Your task to perform on an android device: add a label to a message in the gmail app Image 0: 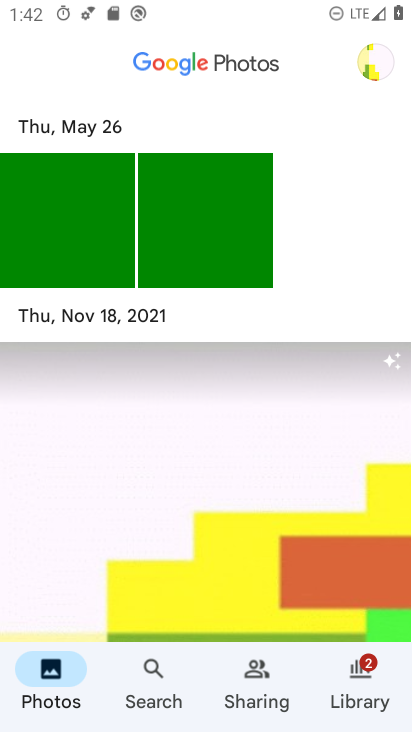
Step 0: press home button
Your task to perform on an android device: add a label to a message in the gmail app Image 1: 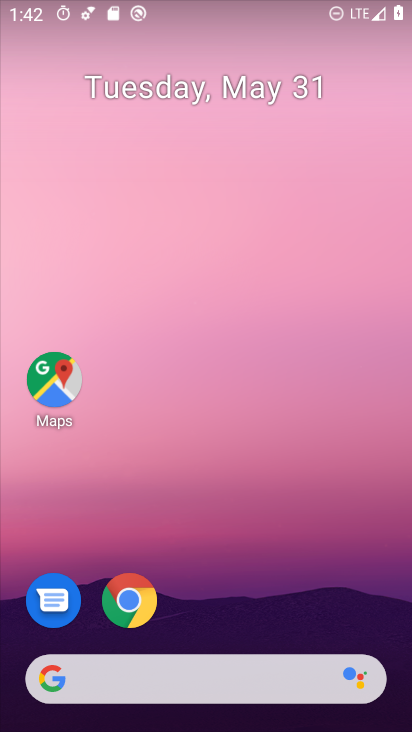
Step 1: drag from (230, 731) to (228, 116)
Your task to perform on an android device: add a label to a message in the gmail app Image 2: 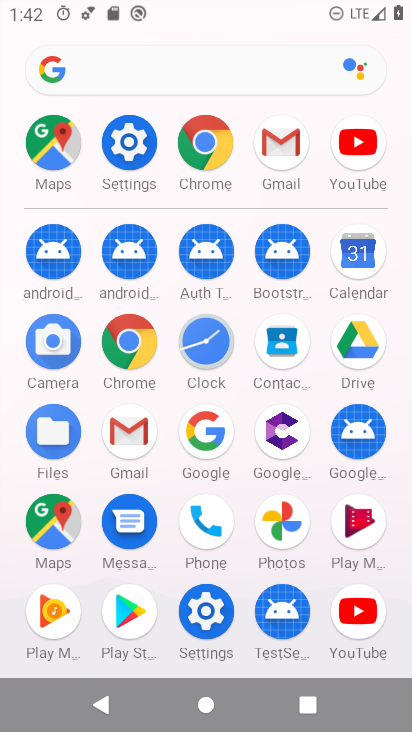
Step 2: click (129, 432)
Your task to perform on an android device: add a label to a message in the gmail app Image 3: 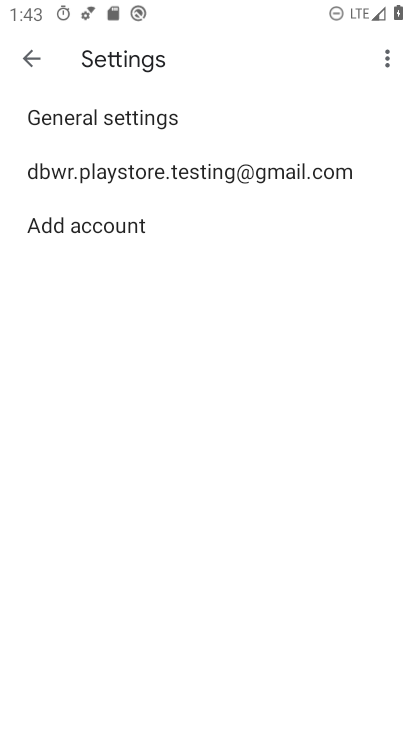
Step 3: click (34, 59)
Your task to perform on an android device: add a label to a message in the gmail app Image 4: 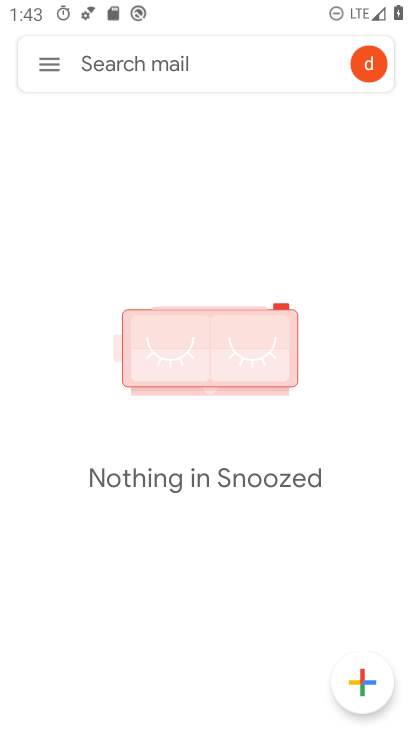
Step 4: click (54, 67)
Your task to perform on an android device: add a label to a message in the gmail app Image 5: 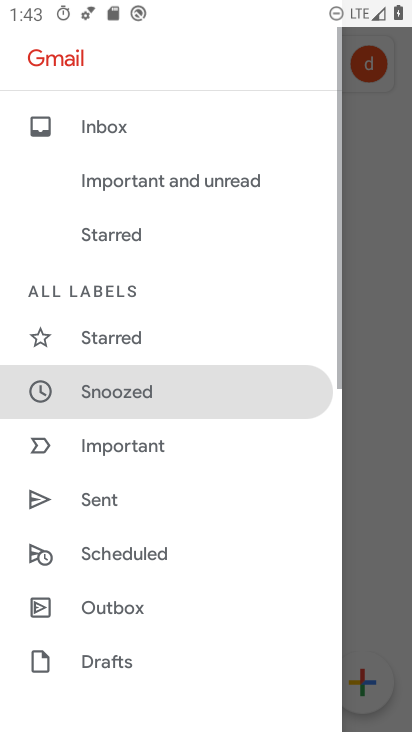
Step 5: click (100, 128)
Your task to perform on an android device: add a label to a message in the gmail app Image 6: 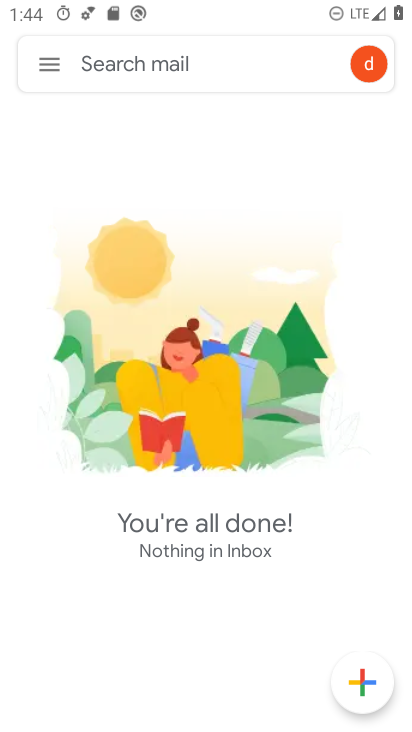
Step 6: task complete